Your task to perform on an android device: add a label to a message in the gmail app Image 0: 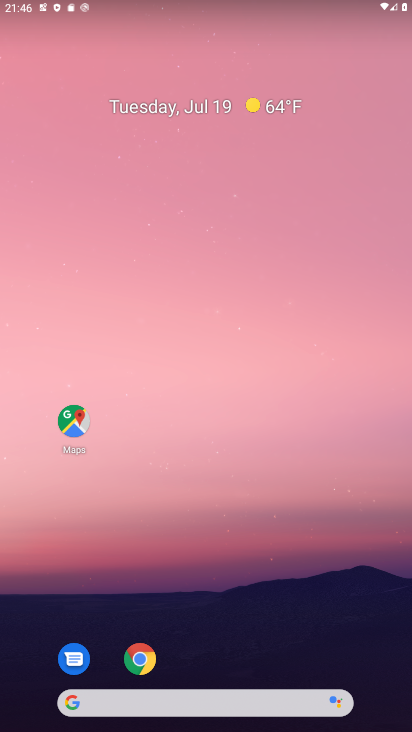
Step 0: drag from (199, 682) to (130, 15)
Your task to perform on an android device: add a label to a message in the gmail app Image 1: 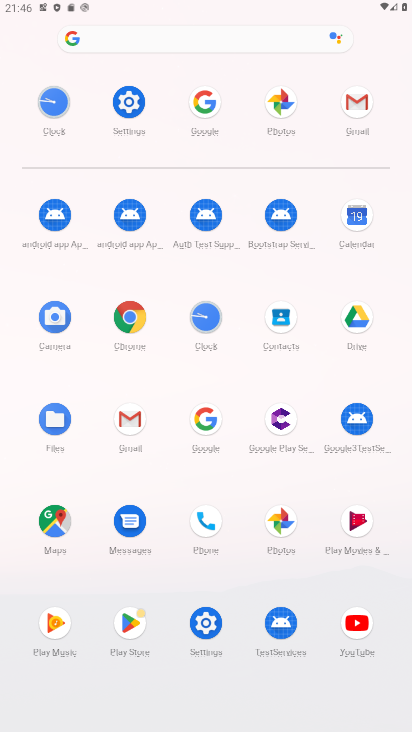
Step 1: click (359, 115)
Your task to perform on an android device: add a label to a message in the gmail app Image 2: 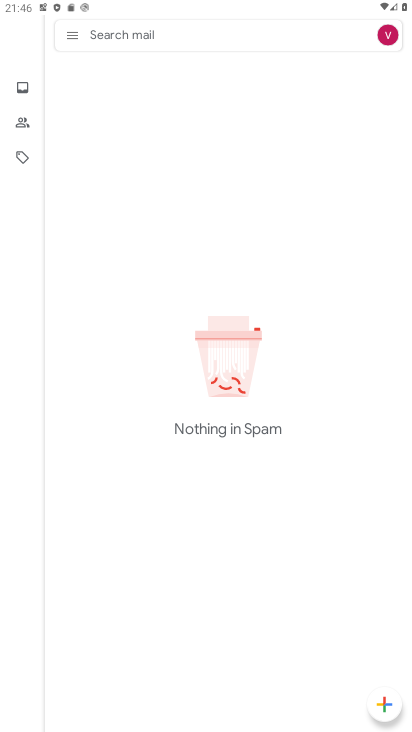
Step 2: click (76, 29)
Your task to perform on an android device: add a label to a message in the gmail app Image 3: 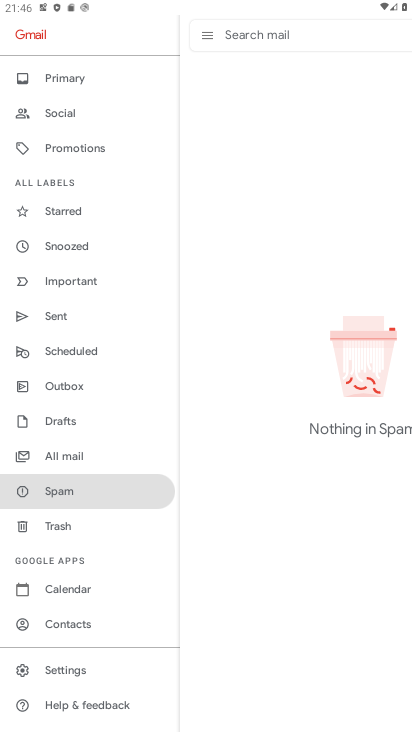
Step 3: click (62, 446)
Your task to perform on an android device: add a label to a message in the gmail app Image 4: 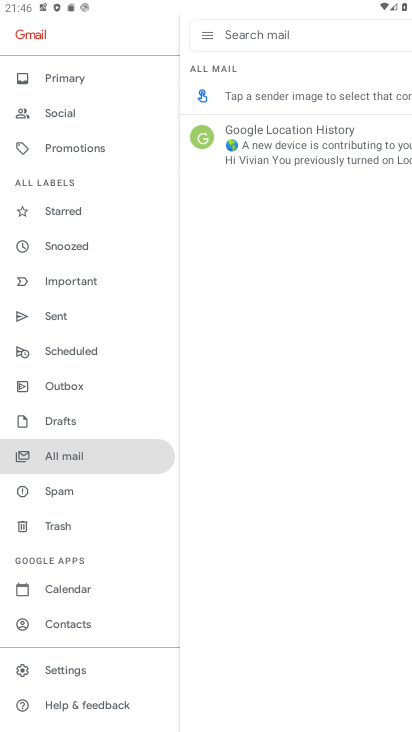
Step 4: click (201, 141)
Your task to perform on an android device: add a label to a message in the gmail app Image 5: 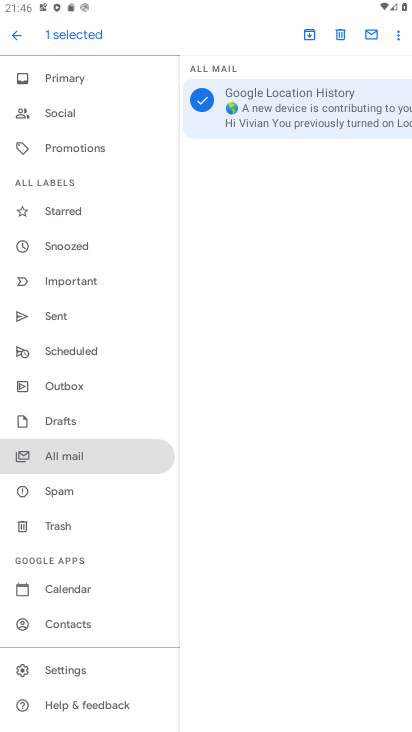
Step 5: click (401, 38)
Your task to perform on an android device: add a label to a message in the gmail app Image 6: 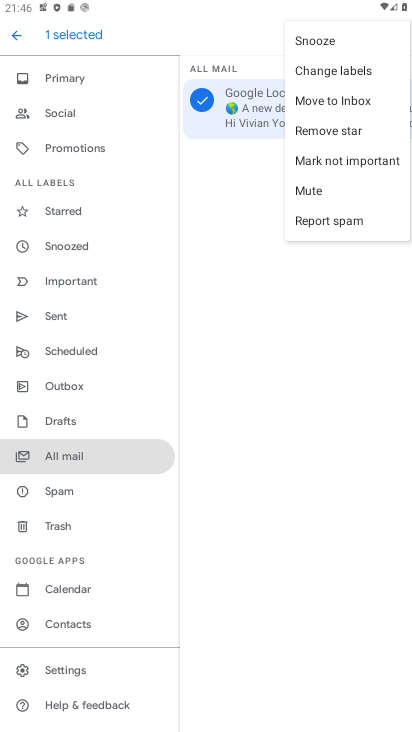
Step 6: click (353, 70)
Your task to perform on an android device: add a label to a message in the gmail app Image 7: 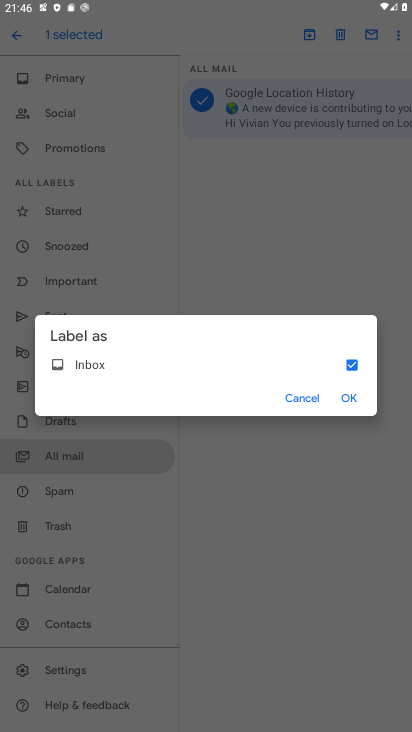
Step 7: click (345, 403)
Your task to perform on an android device: add a label to a message in the gmail app Image 8: 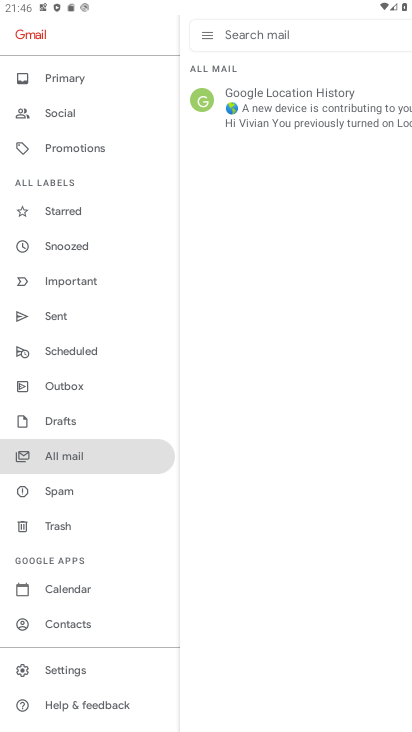
Step 8: task complete